Your task to perform on an android device: Open display settings Image 0: 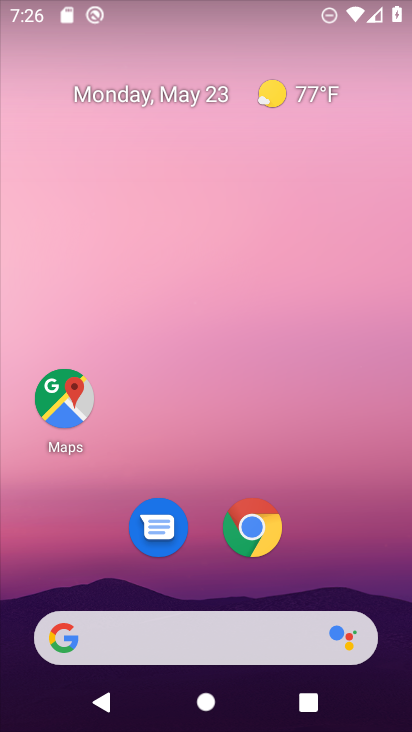
Step 0: drag from (233, 686) to (234, 203)
Your task to perform on an android device: Open display settings Image 1: 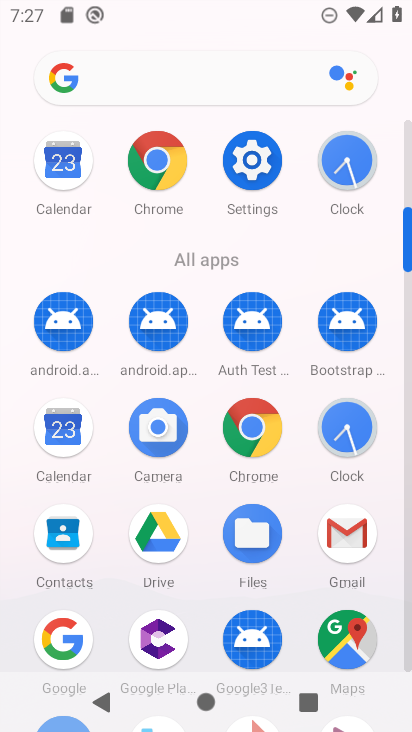
Step 1: click (269, 178)
Your task to perform on an android device: Open display settings Image 2: 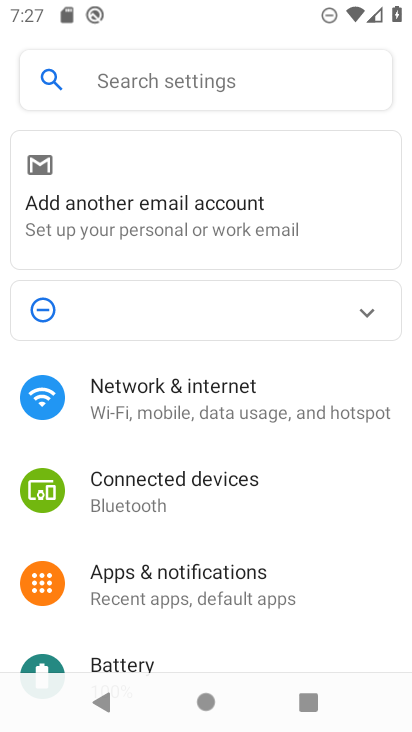
Step 2: drag from (151, 594) to (189, 378)
Your task to perform on an android device: Open display settings Image 3: 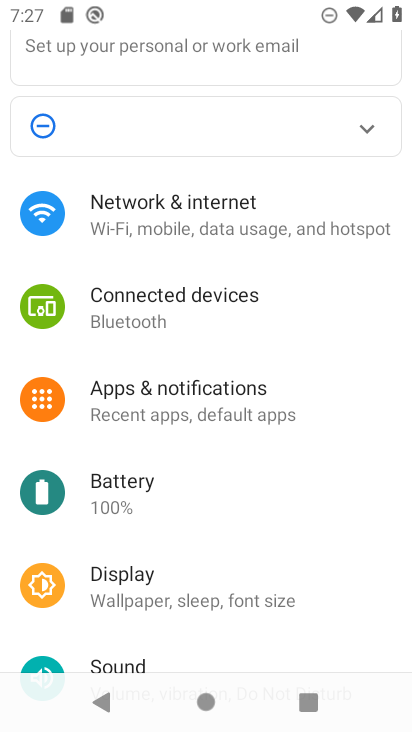
Step 3: click (145, 571)
Your task to perform on an android device: Open display settings Image 4: 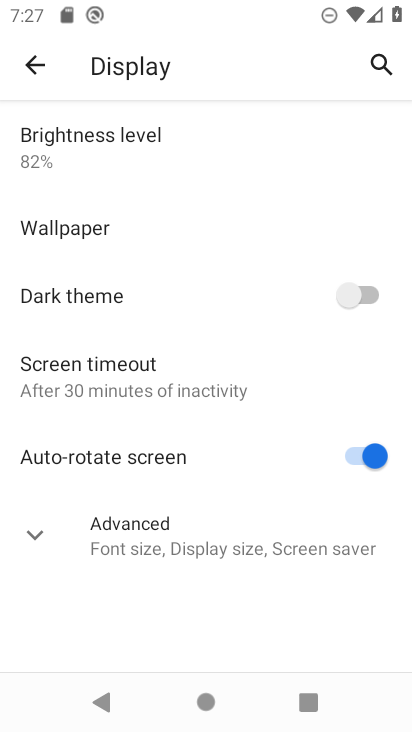
Step 4: task complete